Your task to perform on an android device: open app "Pinterest" (install if not already installed) Image 0: 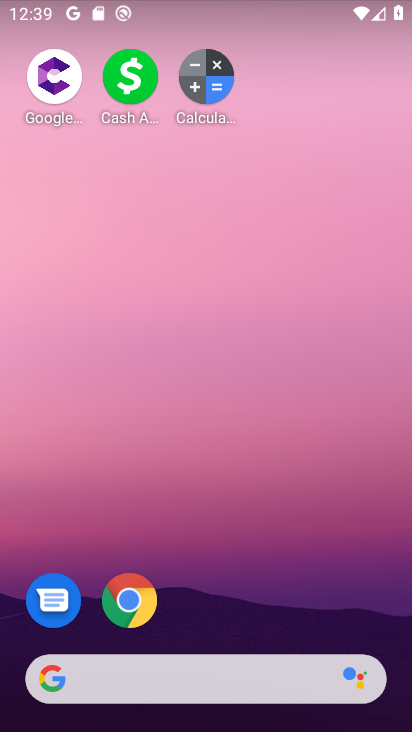
Step 0: drag from (231, 634) to (209, 125)
Your task to perform on an android device: open app "Pinterest" (install if not already installed) Image 1: 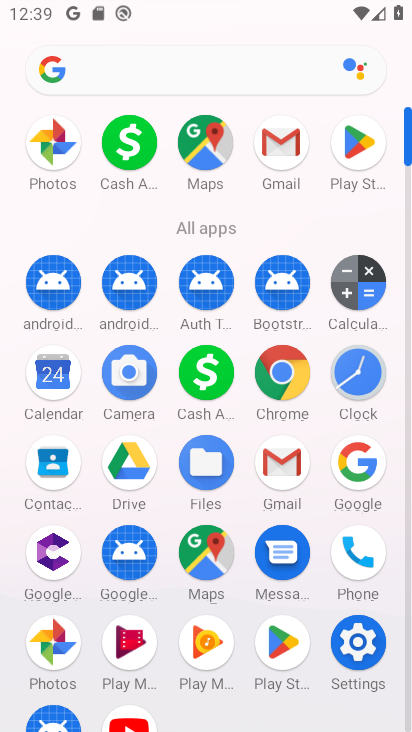
Step 1: click (367, 148)
Your task to perform on an android device: open app "Pinterest" (install if not already installed) Image 2: 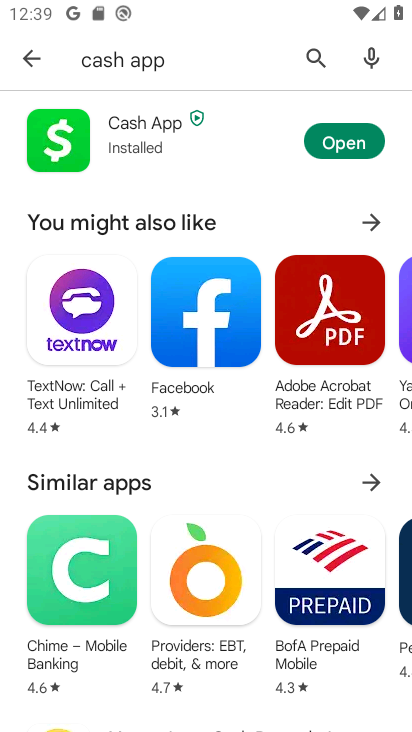
Step 2: click (314, 52)
Your task to perform on an android device: open app "Pinterest" (install if not already installed) Image 3: 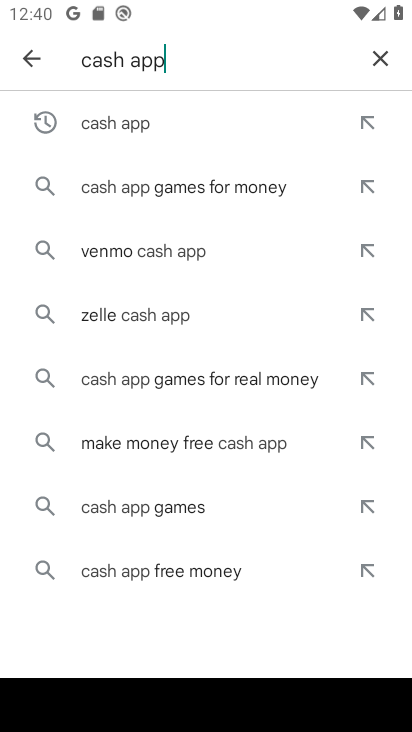
Step 3: click (382, 58)
Your task to perform on an android device: open app "Pinterest" (install if not already installed) Image 4: 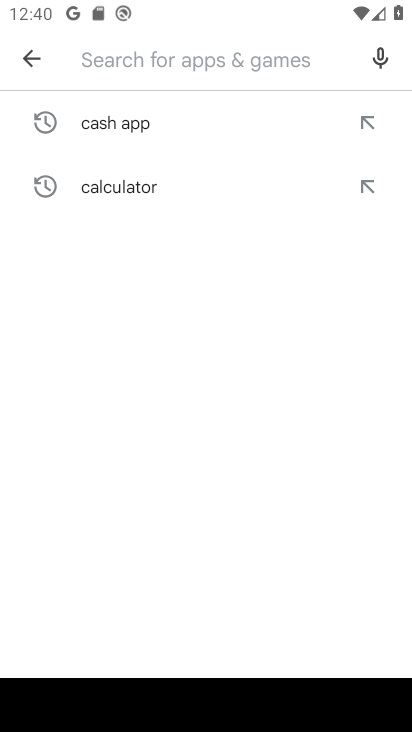
Step 4: type "Pinterest"
Your task to perform on an android device: open app "Pinterest" (install if not already installed) Image 5: 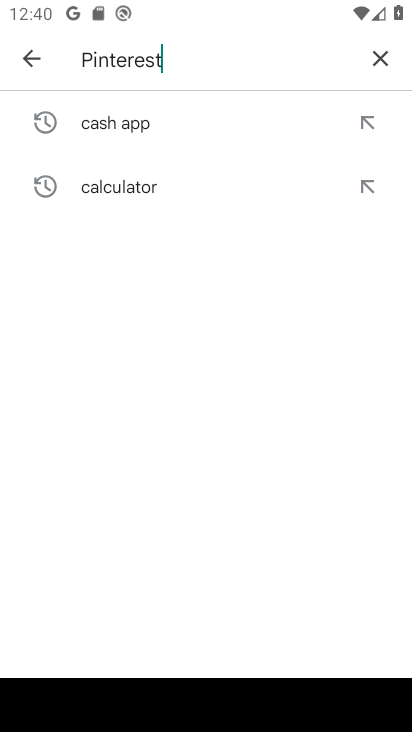
Step 5: type ""
Your task to perform on an android device: open app "Pinterest" (install if not already installed) Image 6: 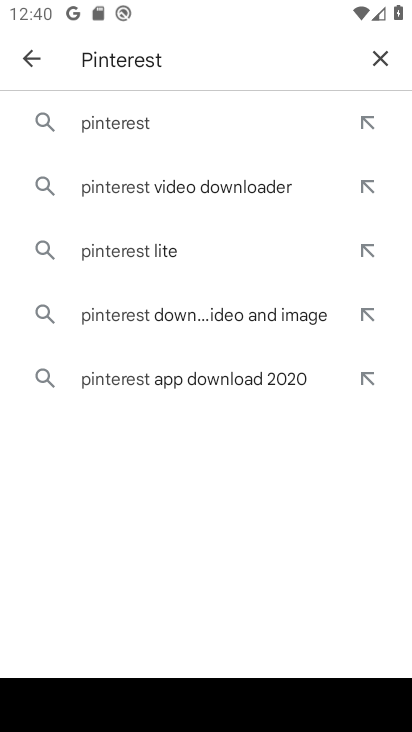
Step 6: click (123, 123)
Your task to perform on an android device: open app "Pinterest" (install if not already installed) Image 7: 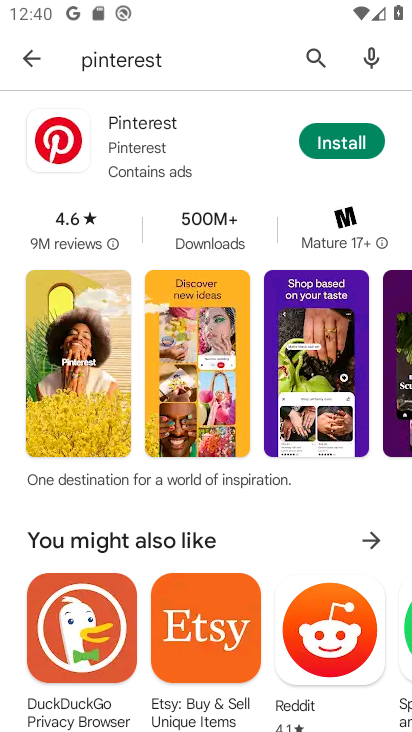
Step 7: click (346, 141)
Your task to perform on an android device: open app "Pinterest" (install if not already installed) Image 8: 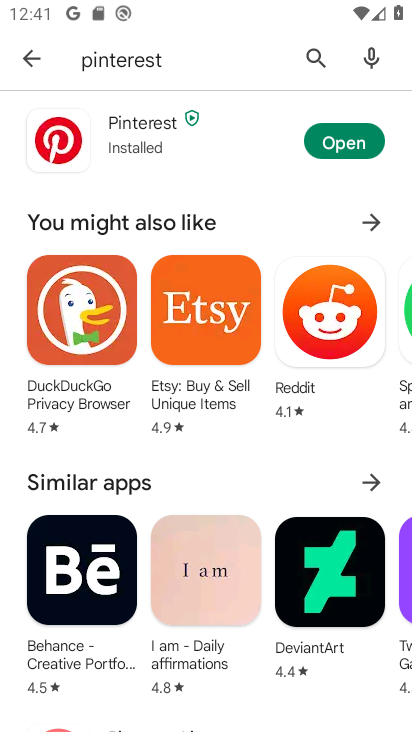
Step 8: click (355, 144)
Your task to perform on an android device: open app "Pinterest" (install if not already installed) Image 9: 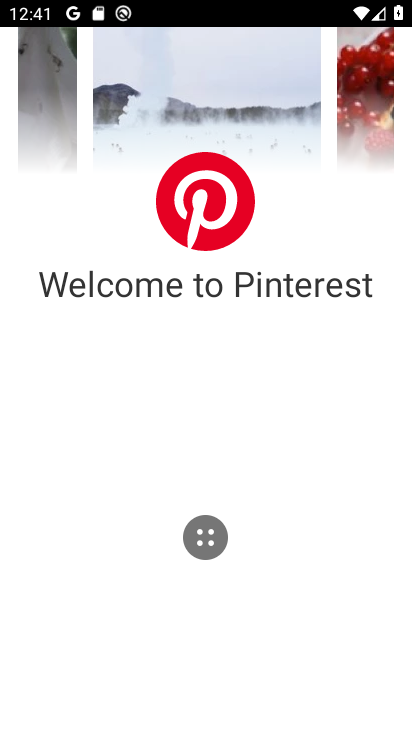
Step 9: task complete